Your task to perform on an android device: move a message to another label in the gmail app Image 0: 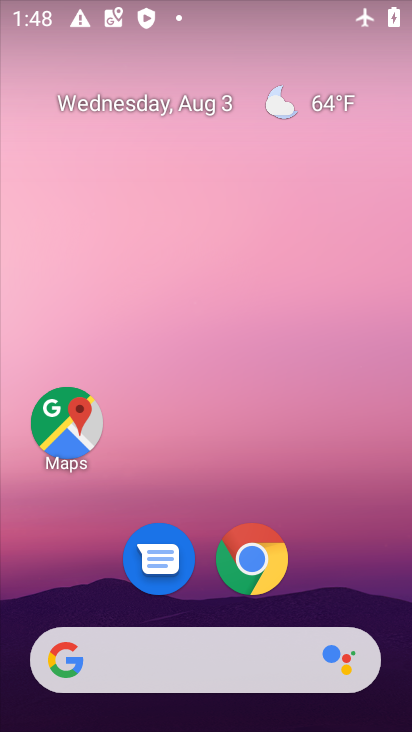
Step 0: drag from (190, 616) to (212, 51)
Your task to perform on an android device: move a message to another label in the gmail app Image 1: 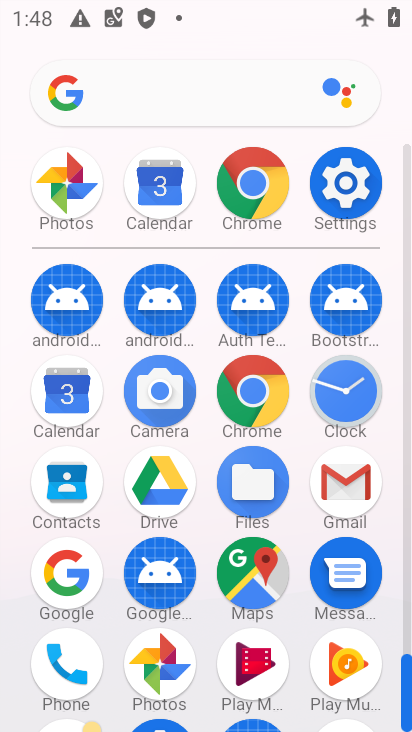
Step 1: click (352, 491)
Your task to perform on an android device: move a message to another label in the gmail app Image 2: 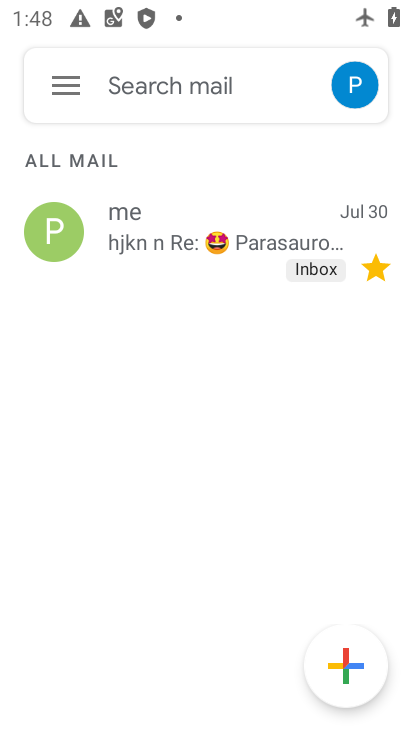
Step 2: click (160, 244)
Your task to perform on an android device: move a message to another label in the gmail app Image 3: 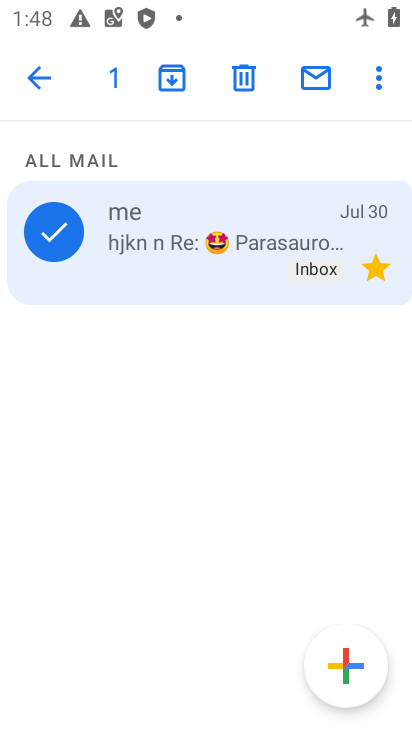
Step 3: click (375, 87)
Your task to perform on an android device: move a message to another label in the gmail app Image 4: 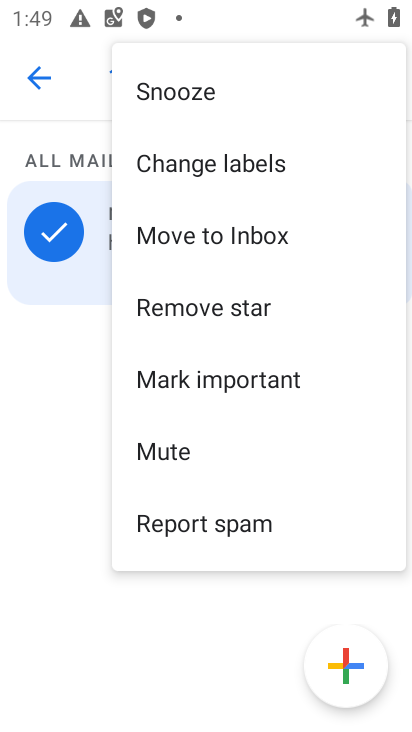
Step 4: click (229, 236)
Your task to perform on an android device: move a message to another label in the gmail app Image 5: 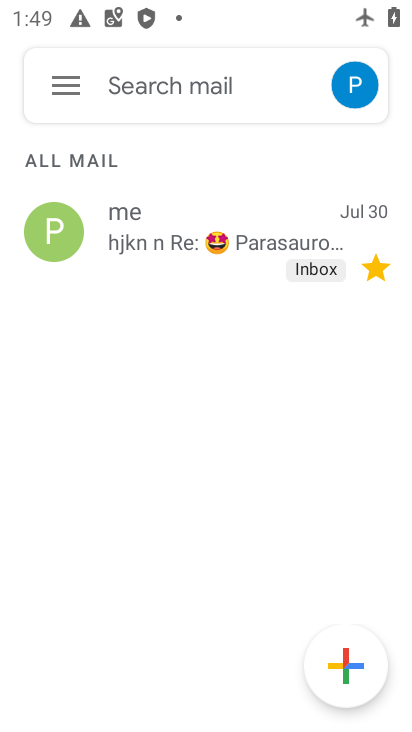
Step 5: task complete